Your task to perform on an android device: turn off sleep mode Image 0: 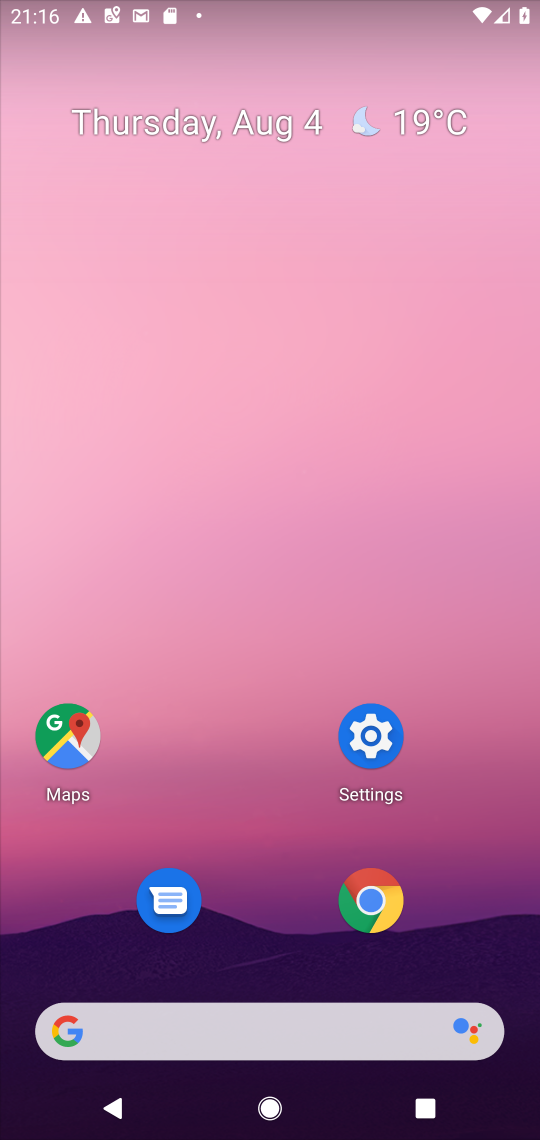
Step 0: click (373, 733)
Your task to perform on an android device: turn off sleep mode Image 1: 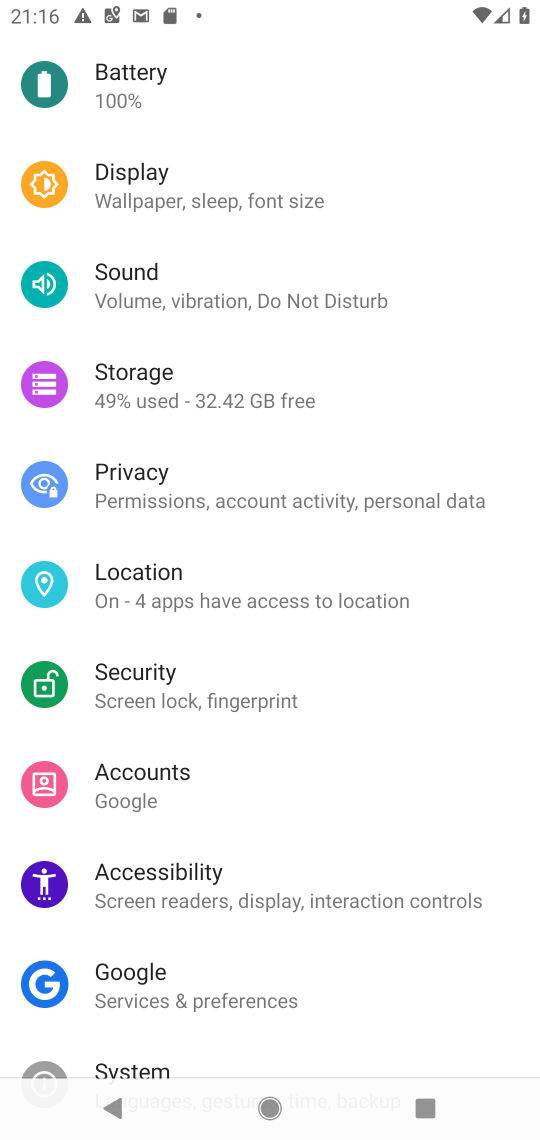
Step 1: click (191, 187)
Your task to perform on an android device: turn off sleep mode Image 2: 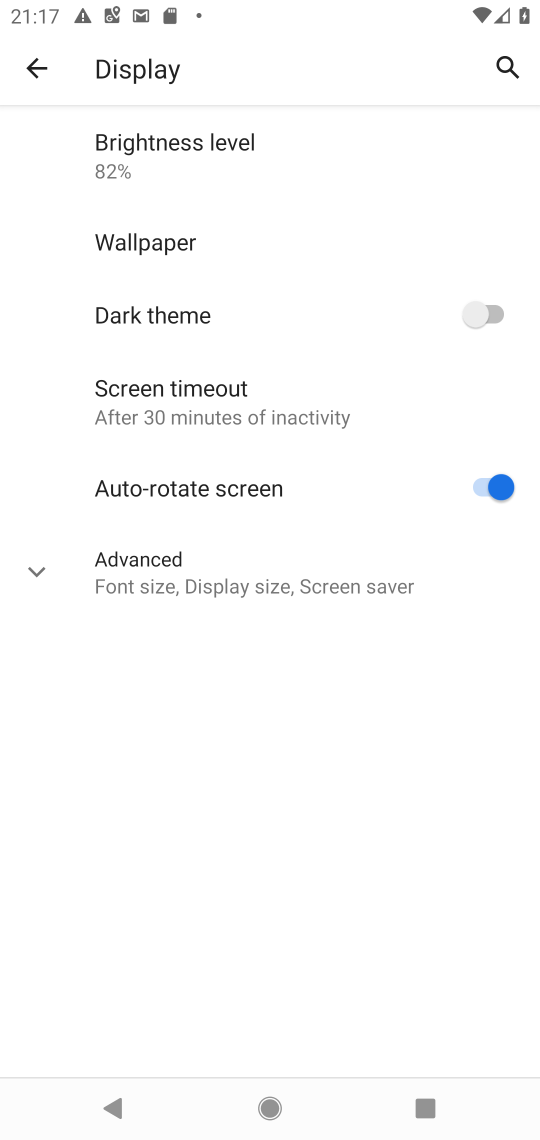
Step 2: task complete